Your task to perform on an android device: open a bookmark in the chrome app Image 0: 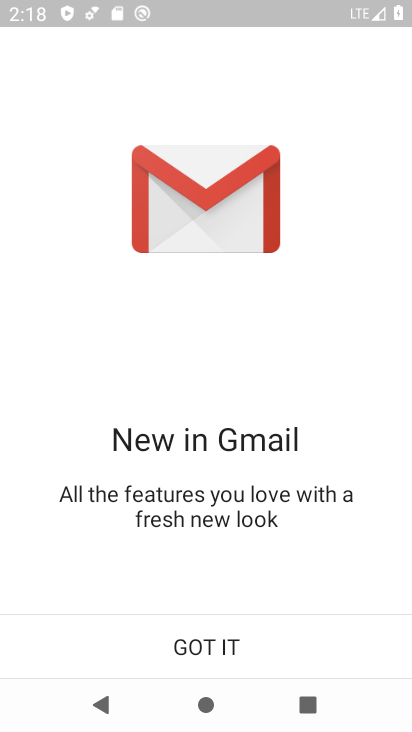
Step 0: press home button
Your task to perform on an android device: open a bookmark in the chrome app Image 1: 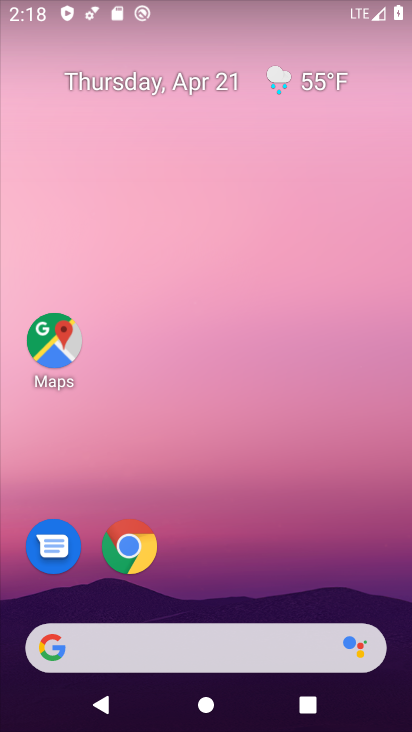
Step 1: click (125, 548)
Your task to perform on an android device: open a bookmark in the chrome app Image 2: 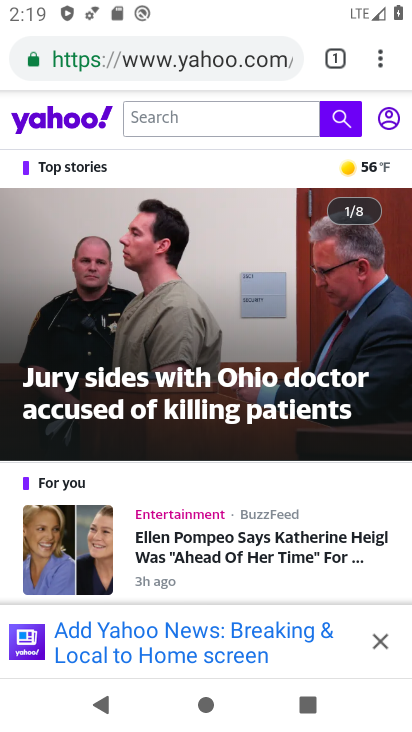
Step 2: click (373, 50)
Your task to perform on an android device: open a bookmark in the chrome app Image 3: 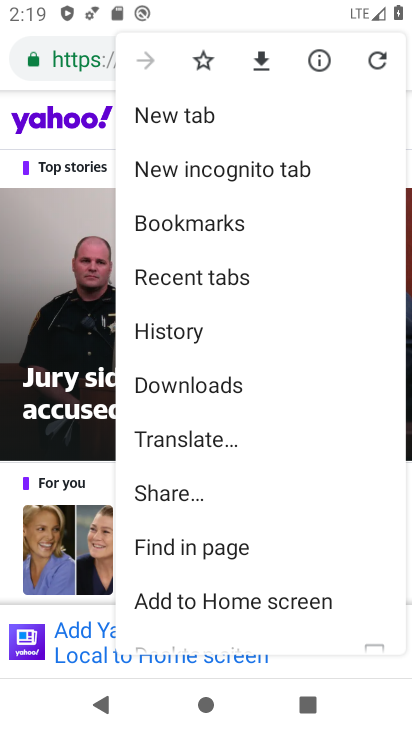
Step 3: click (194, 214)
Your task to perform on an android device: open a bookmark in the chrome app Image 4: 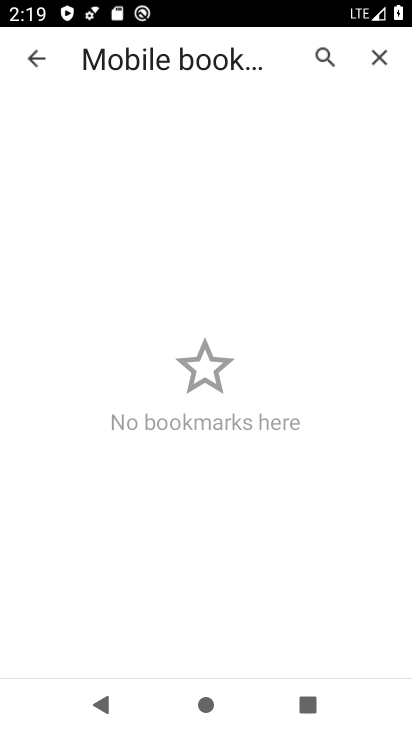
Step 4: task complete